Your task to perform on an android device: Open network settings Image 0: 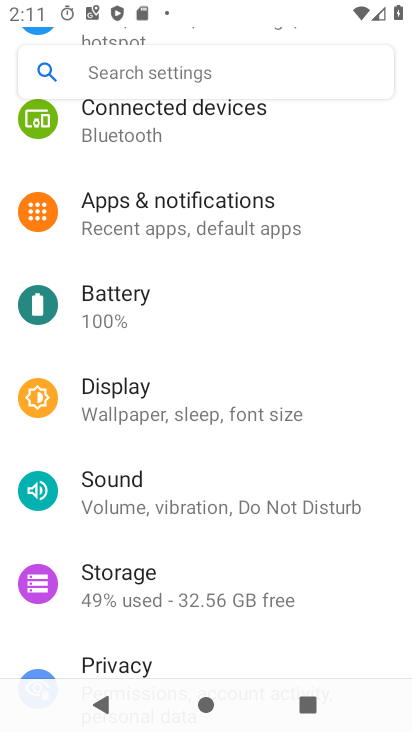
Step 0: drag from (171, 163) to (212, 592)
Your task to perform on an android device: Open network settings Image 1: 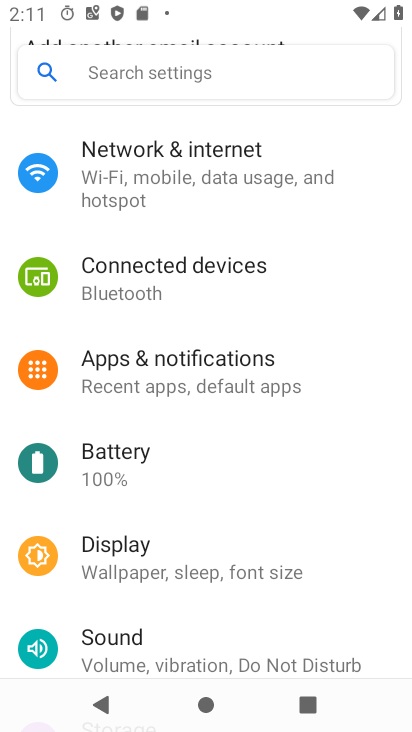
Step 1: click (139, 197)
Your task to perform on an android device: Open network settings Image 2: 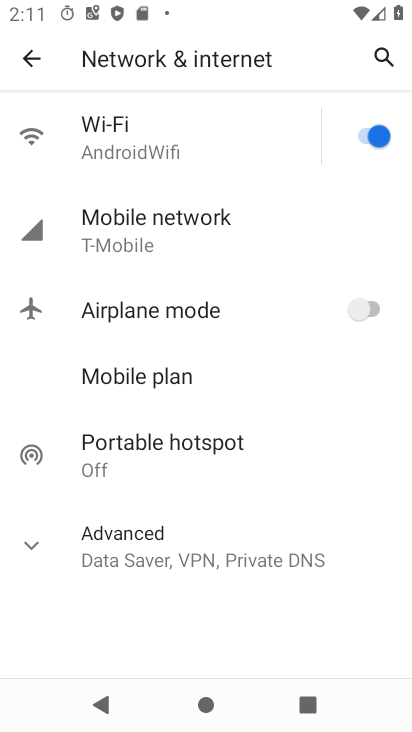
Step 2: click (137, 210)
Your task to perform on an android device: Open network settings Image 3: 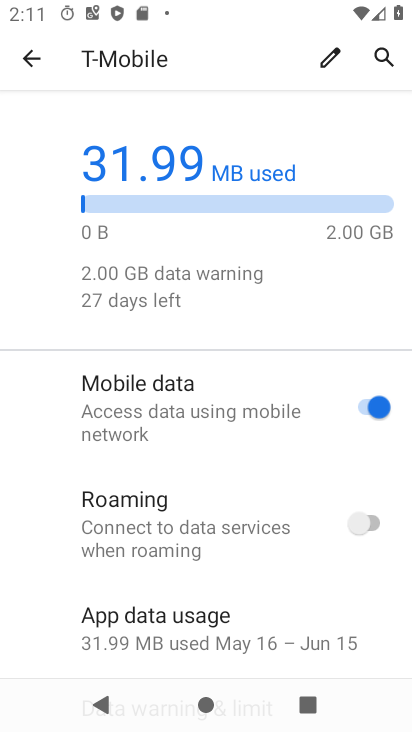
Step 3: task complete